Your task to perform on an android device: turn on priority inbox in the gmail app Image 0: 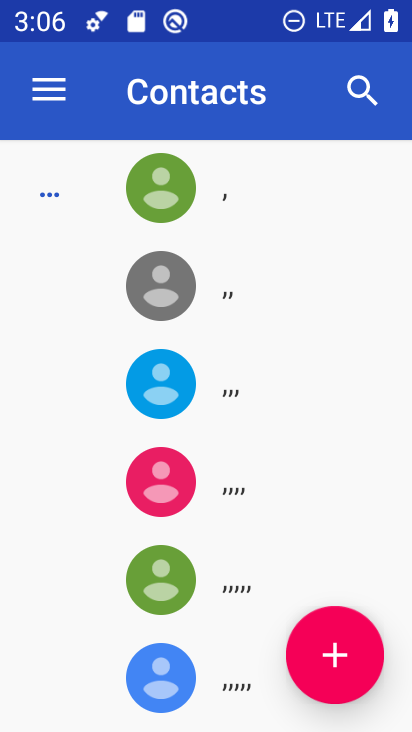
Step 0: press back button
Your task to perform on an android device: turn on priority inbox in the gmail app Image 1: 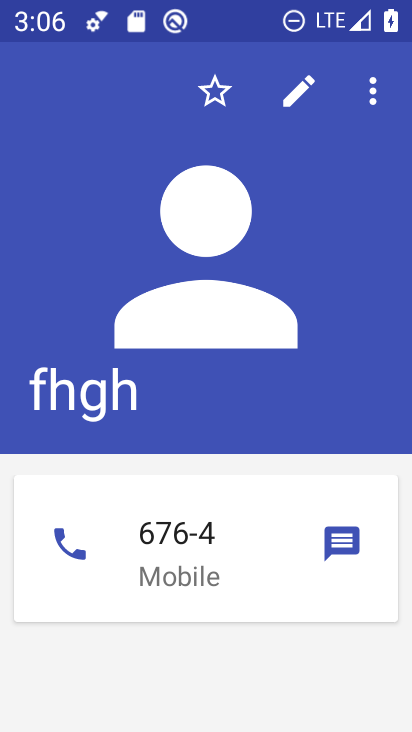
Step 1: press back button
Your task to perform on an android device: turn on priority inbox in the gmail app Image 2: 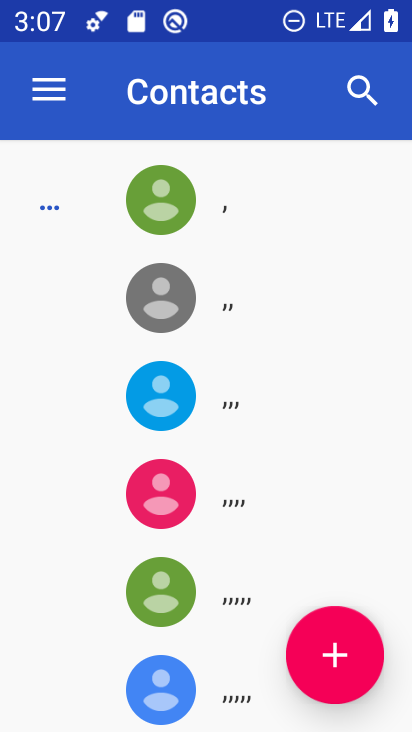
Step 2: press back button
Your task to perform on an android device: turn on priority inbox in the gmail app Image 3: 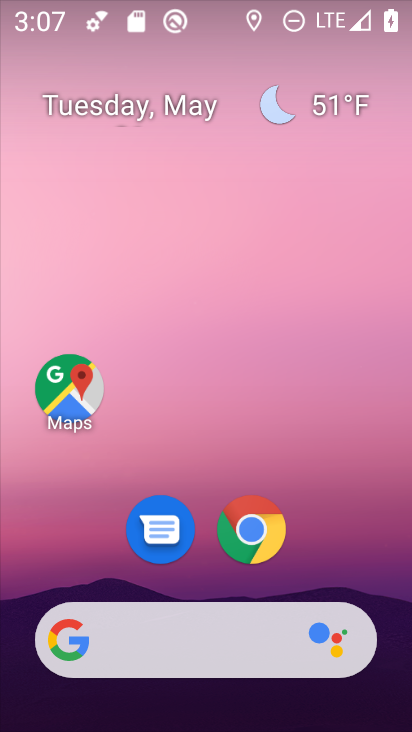
Step 3: drag from (244, 460) to (304, 75)
Your task to perform on an android device: turn on priority inbox in the gmail app Image 4: 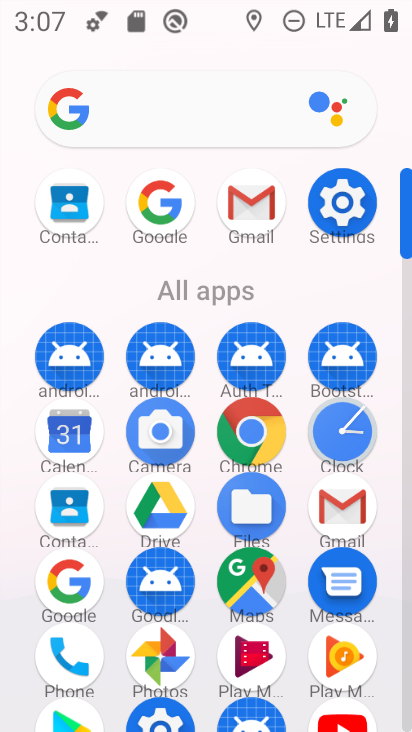
Step 4: click (246, 209)
Your task to perform on an android device: turn on priority inbox in the gmail app Image 5: 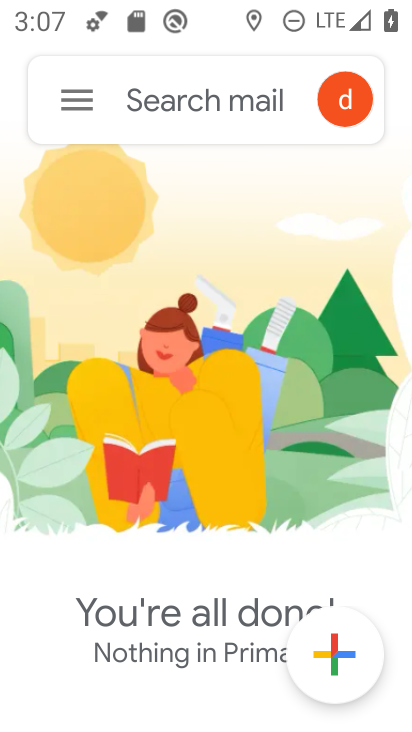
Step 5: click (69, 91)
Your task to perform on an android device: turn on priority inbox in the gmail app Image 6: 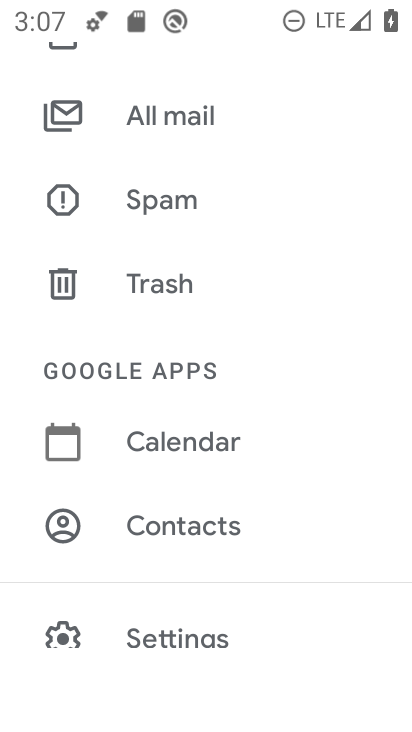
Step 6: click (181, 636)
Your task to perform on an android device: turn on priority inbox in the gmail app Image 7: 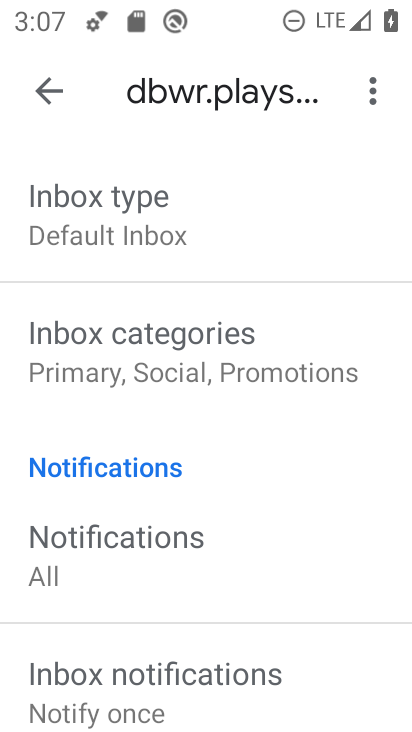
Step 7: click (133, 226)
Your task to perform on an android device: turn on priority inbox in the gmail app Image 8: 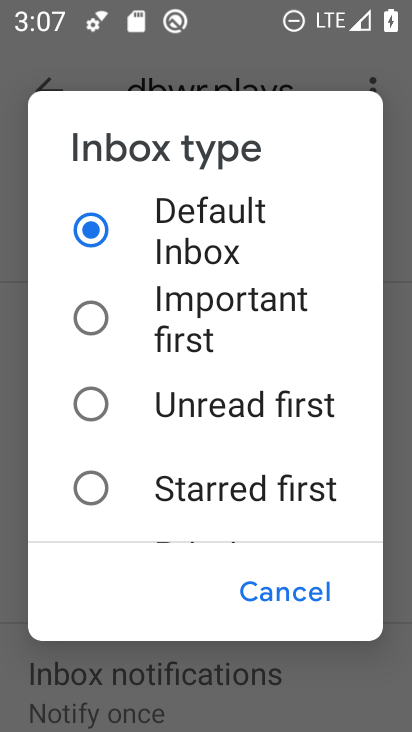
Step 8: drag from (205, 504) to (243, 44)
Your task to perform on an android device: turn on priority inbox in the gmail app Image 9: 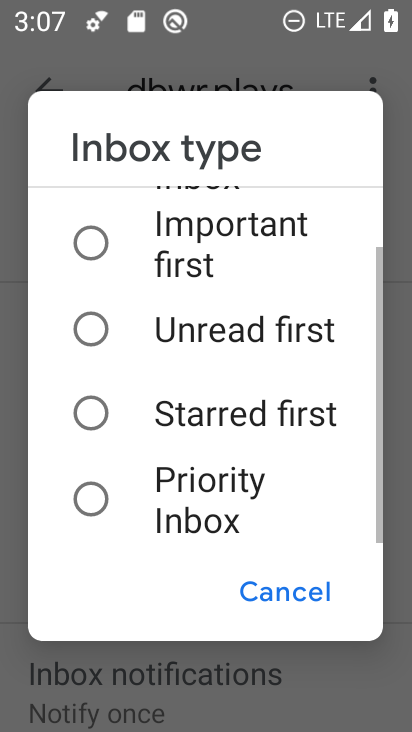
Step 9: click (89, 514)
Your task to perform on an android device: turn on priority inbox in the gmail app Image 10: 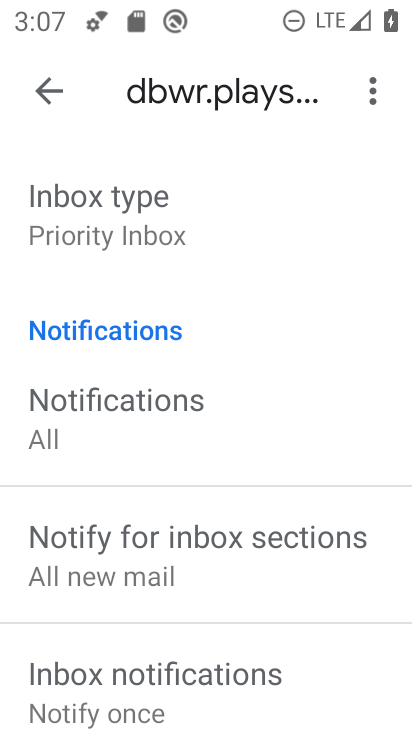
Step 10: task complete